Your task to perform on an android device: Open Yahoo.com Image 0: 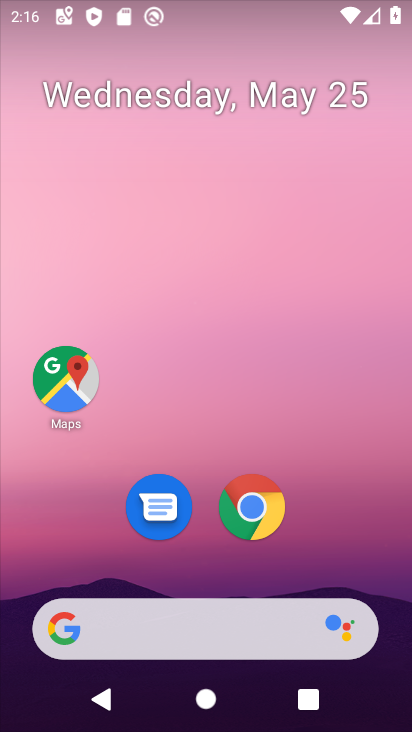
Step 0: drag from (244, 620) to (276, 137)
Your task to perform on an android device: Open Yahoo.com Image 1: 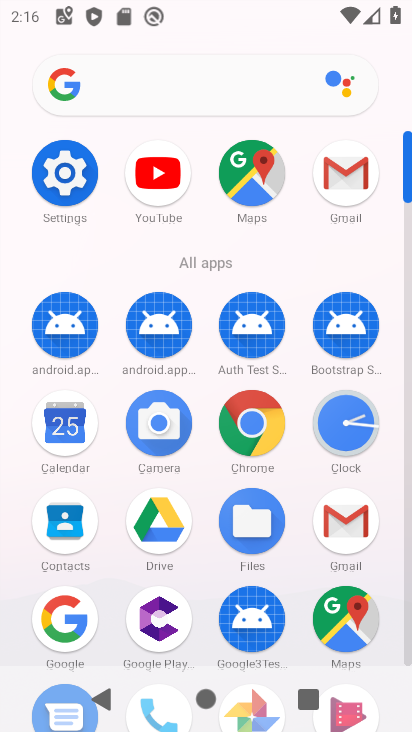
Step 1: drag from (218, 498) to (250, 163)
Your task to perform on an android device: Open Yahoo.com Image 2: 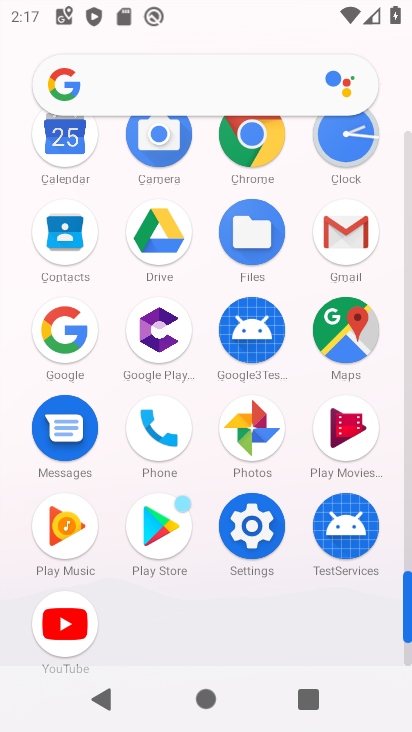
Step 2: click (257, 174)
Your task to perform on an android device: Open Yahoo.com Image 3: 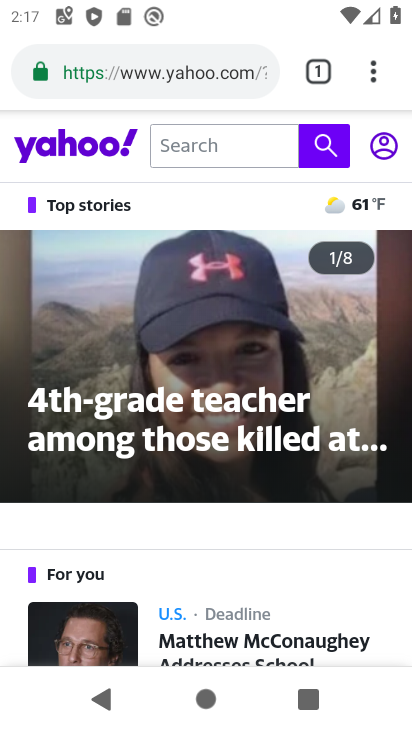
Step 3: click (250, 80)
Your task to perform on an android device: Open Yahoo.com Image 4: 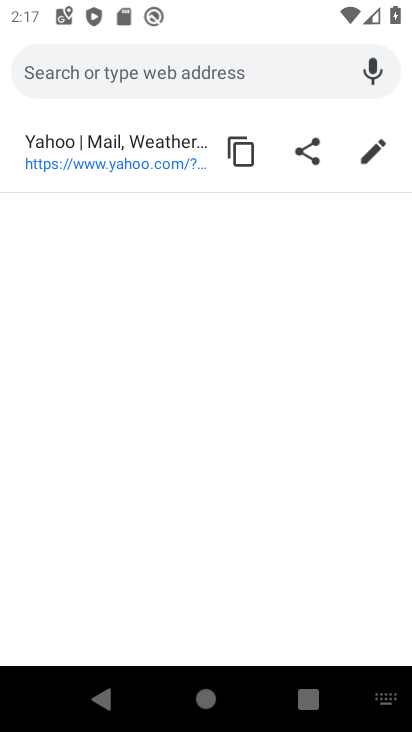
Step 4: click (146, 161)
Your task to perform on an android device: Open Yahoo.com Image 5: 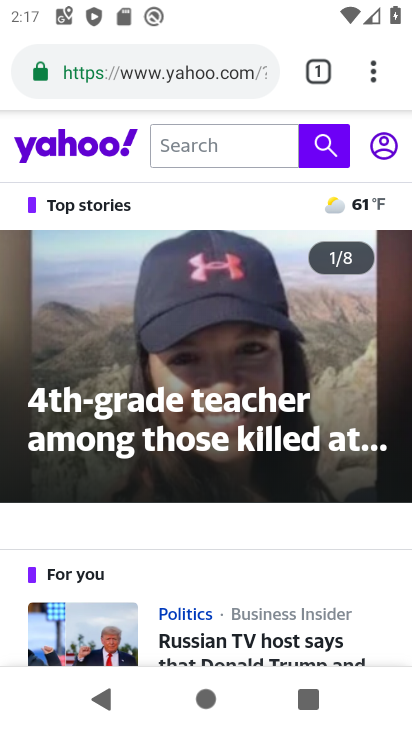
Step 5: task complete